Your task to perform on an android device: Check the weather Image 0: 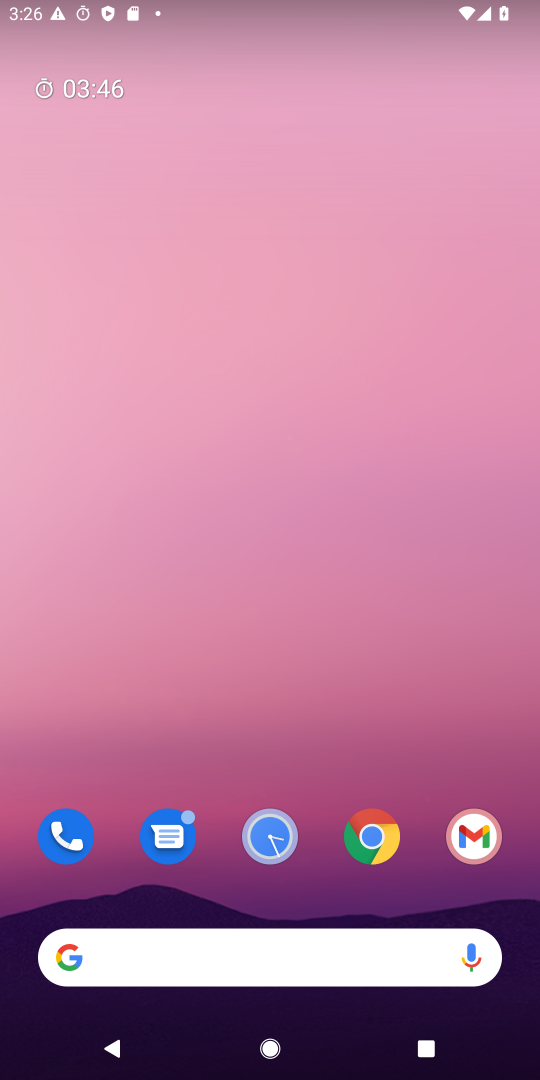
Step 0: click (189, 967)
Your task to perform on an android device: Check the weather Image 1: 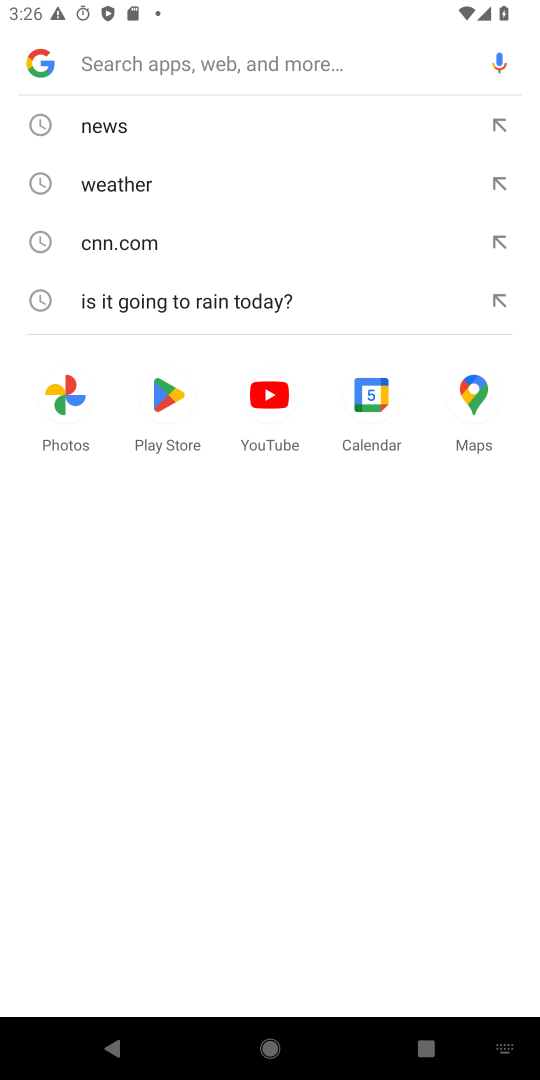
Step 1: click (140, 179)
Your task to perform on an android device: Check the weather Image 2: 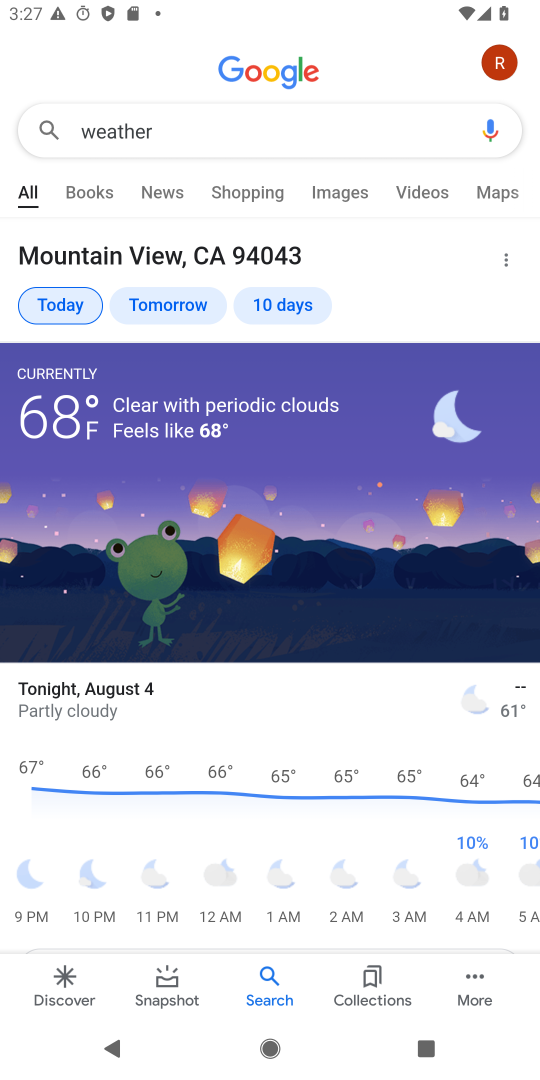
Step 2: task complete